Your task to perform on an android device: Open battery settings Image 0: 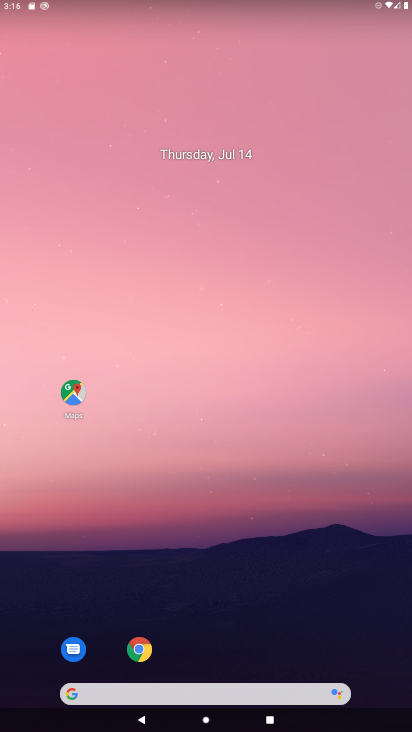
Step 0: drag from (287, 647) to (285, 8)
Your task to perform on an android device: Open battery settings Image 1: 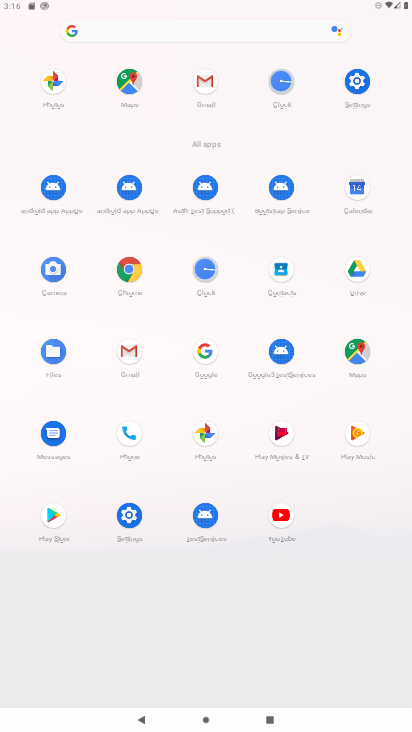
Step 1: click (358, 71)
Your task to perform on an android device: Open battery settings Image 2: 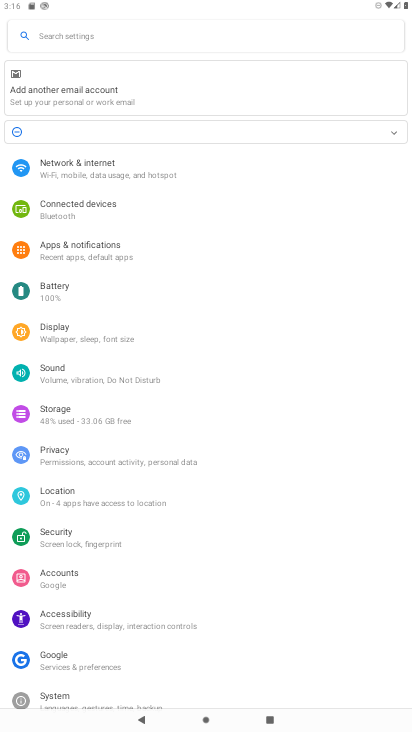
Step 2: click (77, 295)
Your task to perform on an android device: Open battery settings Image 3: 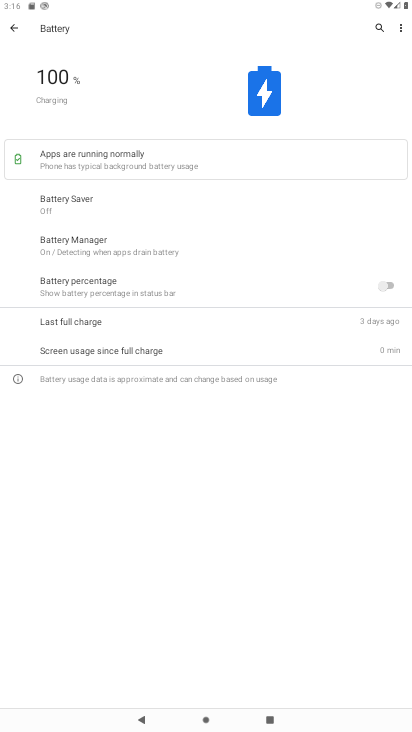
Step 3: task complete